Your task to perform on an android device: View the shopping cart on bestbuy.com. Add logitech g903 to the cart on bestbuy.com, then select checkout. Image 0: 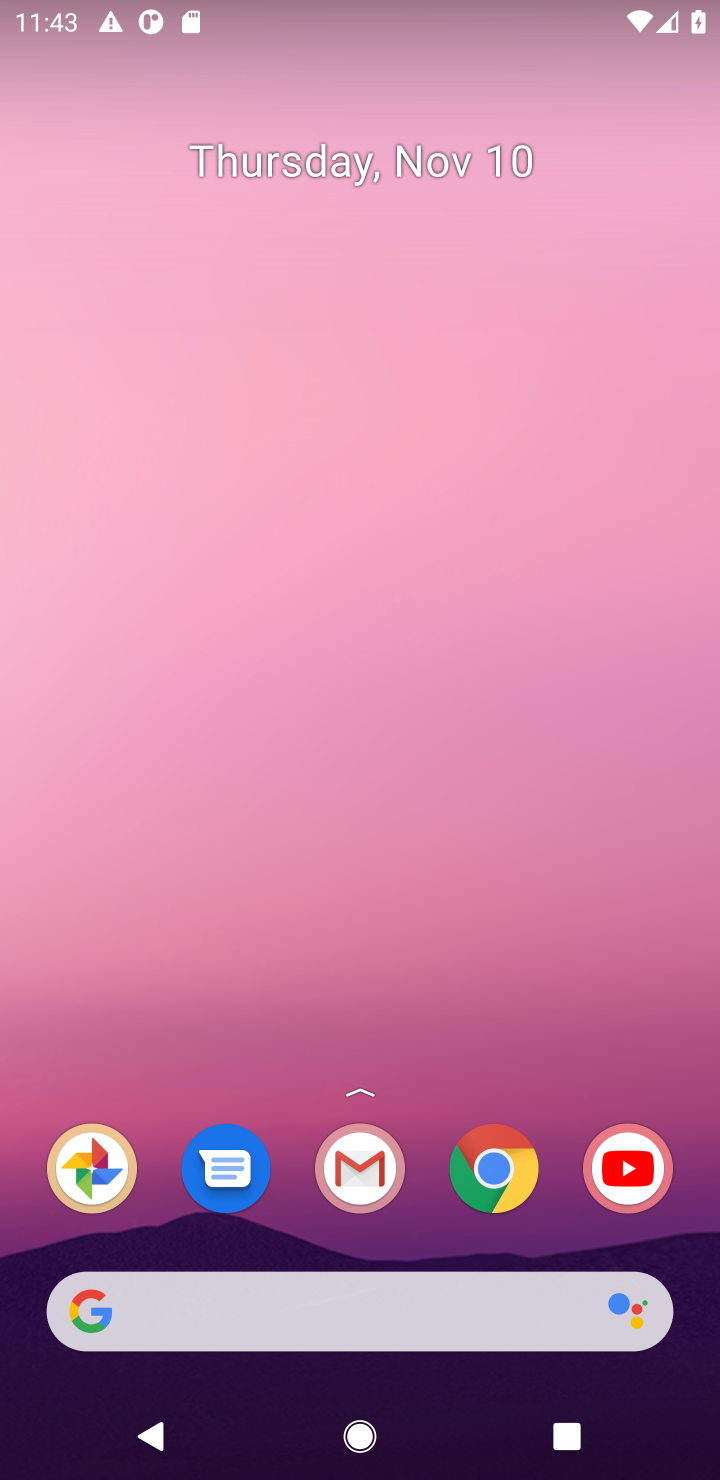
Step 0: click (494, 1179)
Your task to perform on an android device: View the shopping cart on bestbuy.com. Add logitech g903 to the cart on bestbuy.com, then select checkout. Image 1: 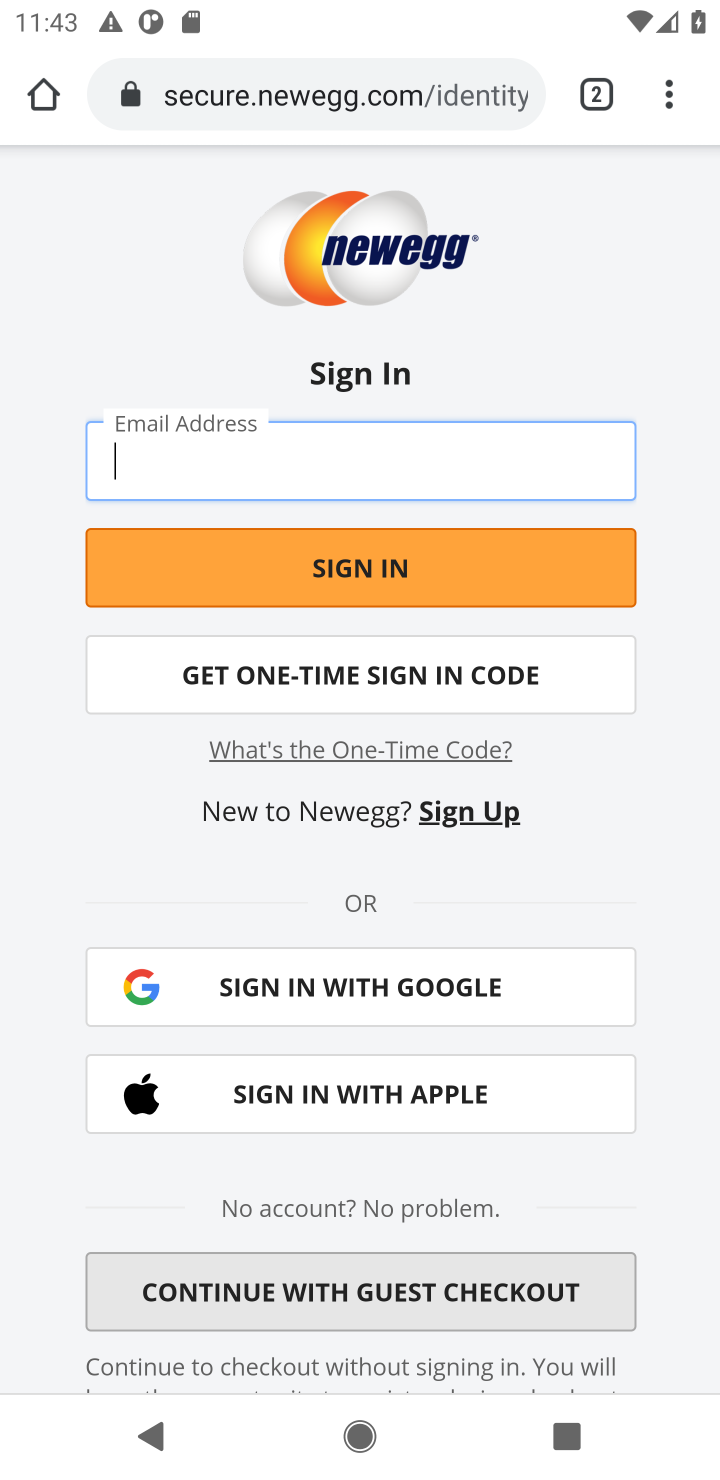
Step 1: click (338, 111)
Your task to perform on an android device: View the shopping cart on bestbuy.com. Add logitech g903 to the cart on bestbuy.com, then select checkout. Image 2: 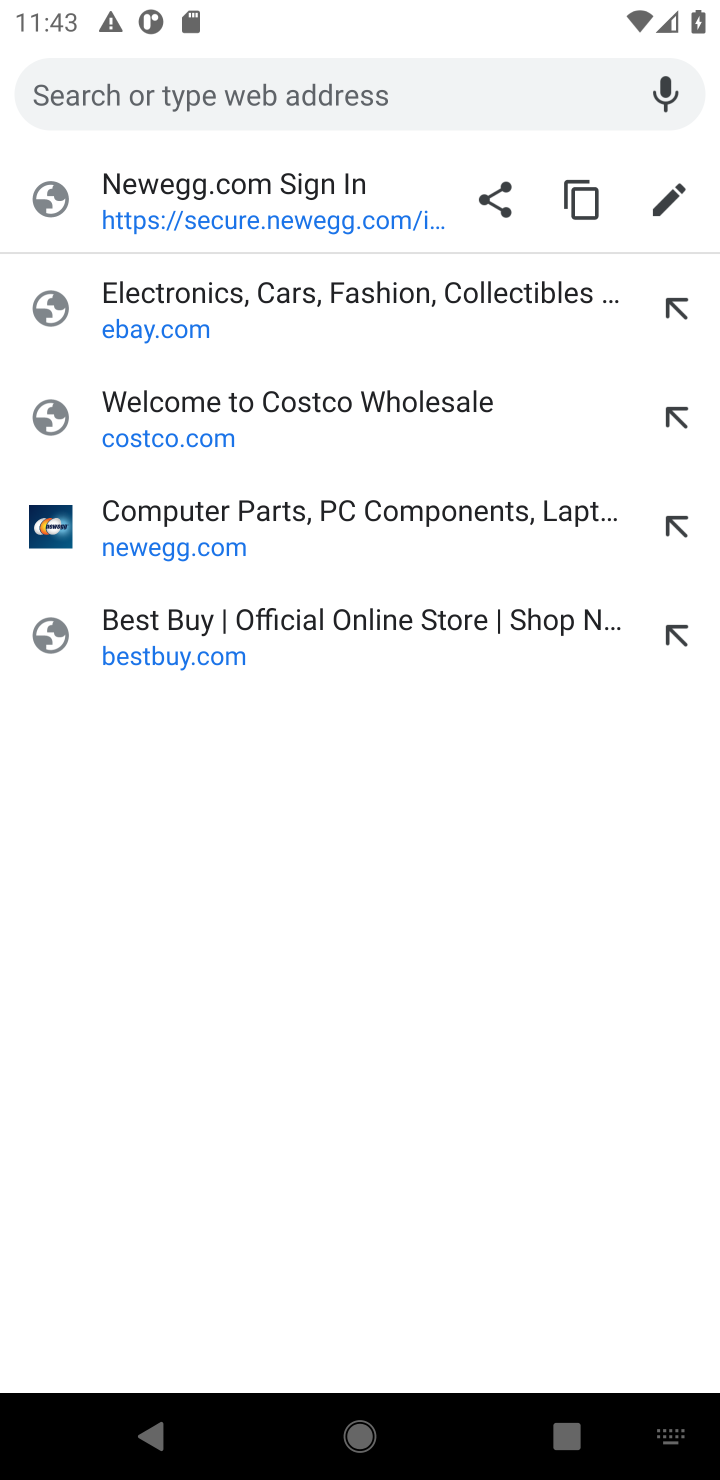
Step 2: click (176, 628)
Your task to perform on an android device: View the shopping cart on bestbuy.com. Add logitech g903 to the cart on bestbuy.com, then select checkout. Image 3: 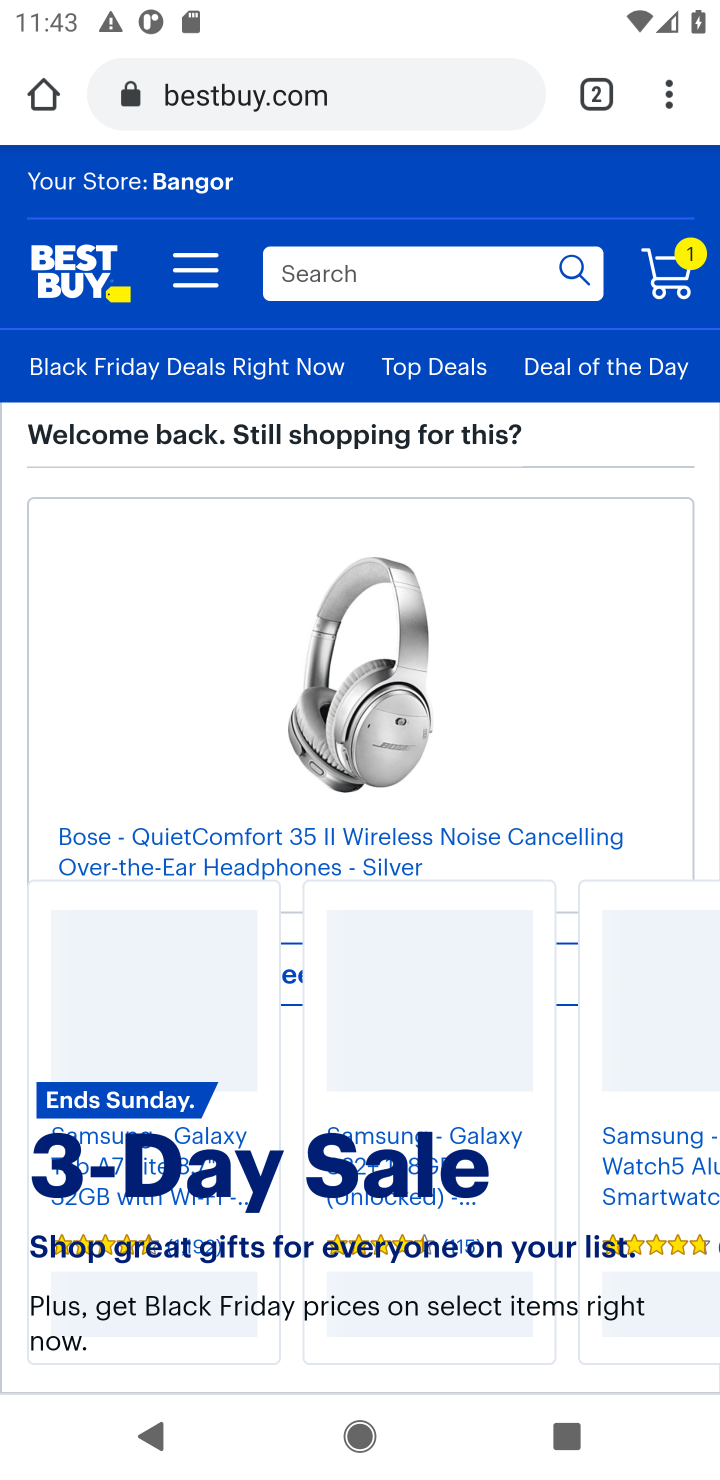
Step 3: click (683, 277)
Your task to perform on an android device: View the shopping cart on bestbuy.com. Add logitech g903 to the cart on bestbuy.com, then select checkout. Image 4: 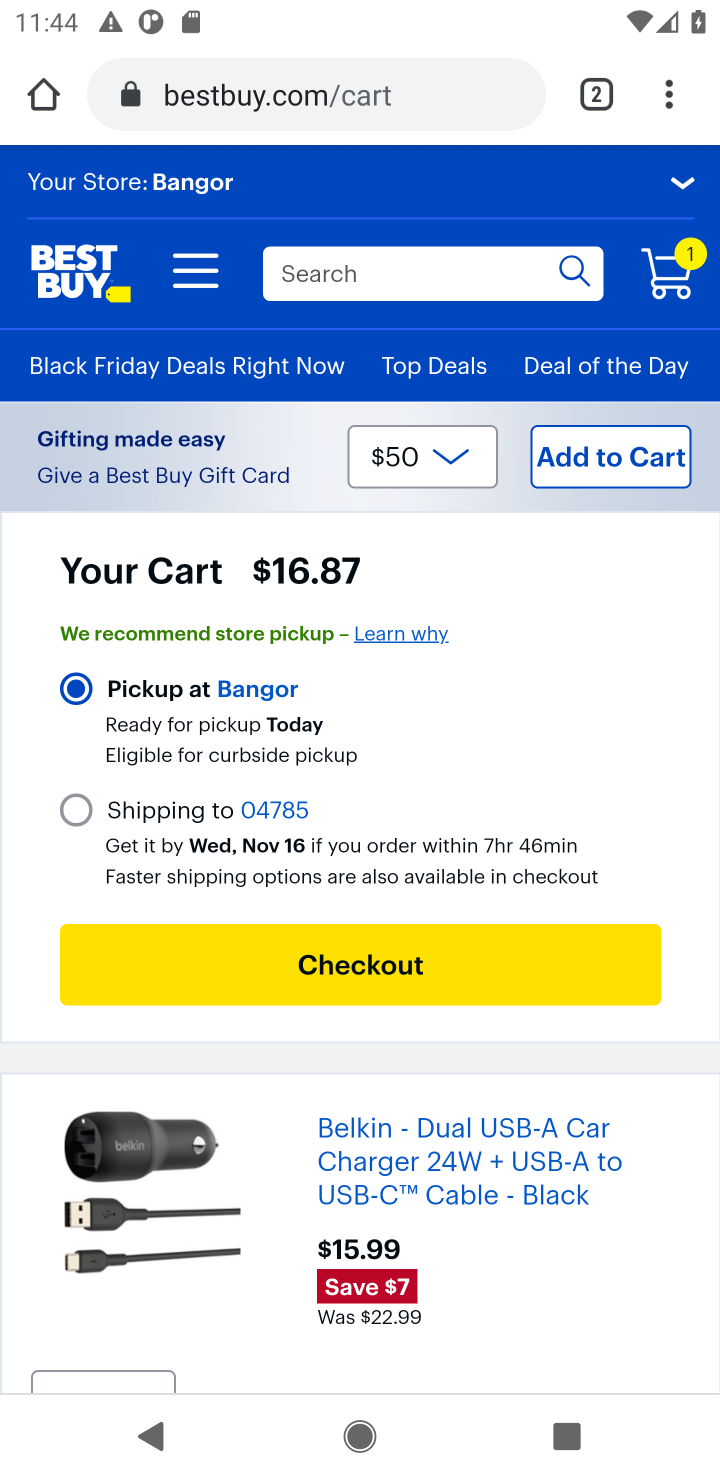
Step 4: drag from (351, 806) to (351, 511)
Your task to perform on an android device: View the shopping cart on bestbuy.com. Add logitech g903 to the cart on bestbuy.com, then select checkout. Image 5: 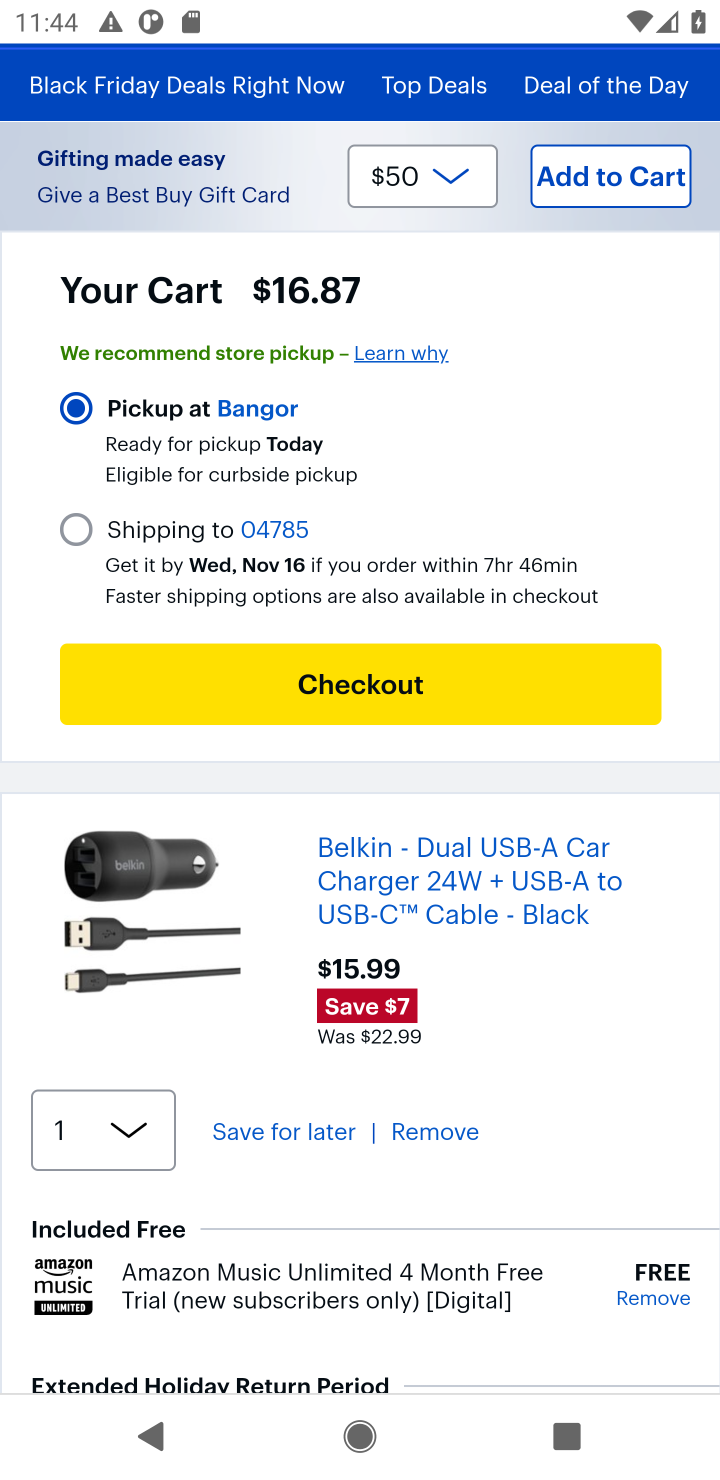
Step 5: drag from (628, 487) to (608, 943)
Your task to perform on an android device: View the shopping cart on bestbuy.com. Add logitech g903 to the cart on bestbuy.com, then select checkout. Image 6: 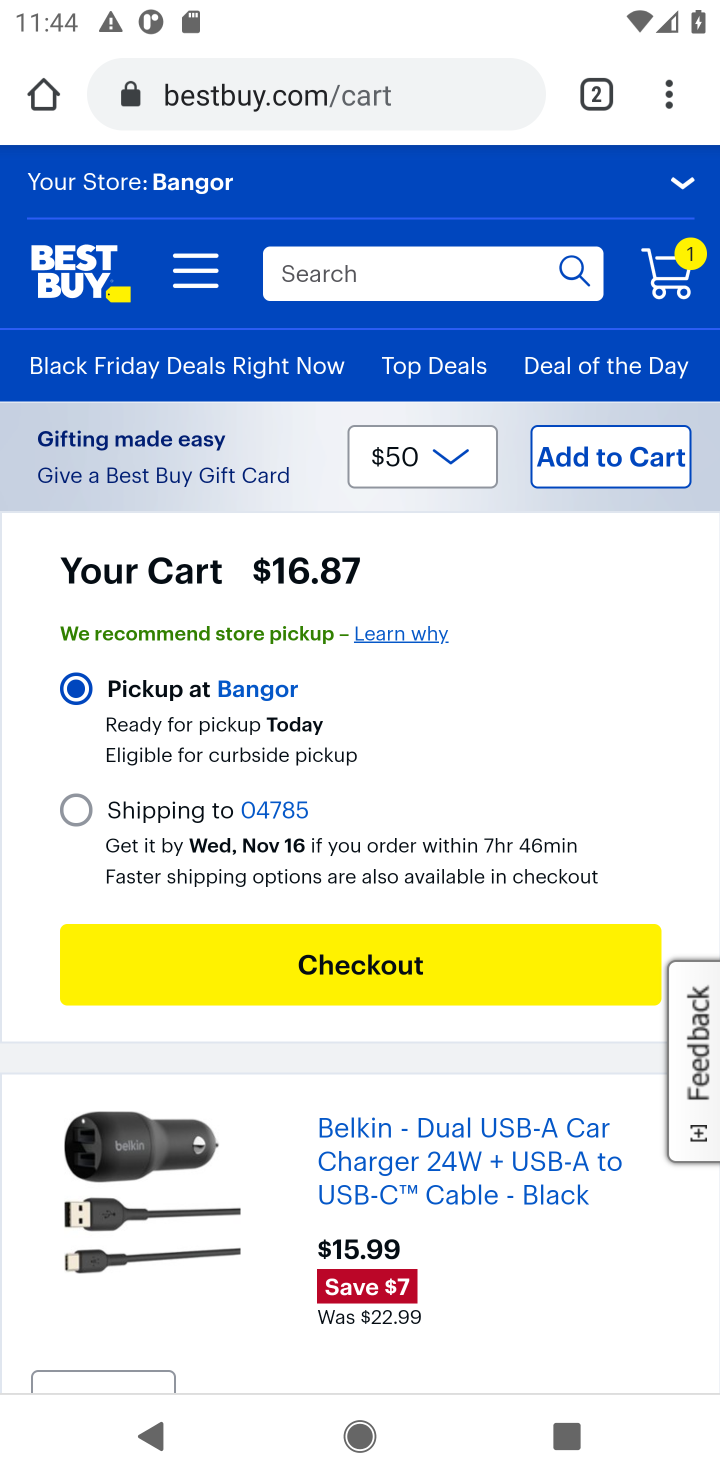
Step 6: click (339, 277)
Your task to perform on an android device: View the shopping cart on bestbuy.com. Add logitech g903 to the cart on bestbuy.com, then select checkout. Image 7: 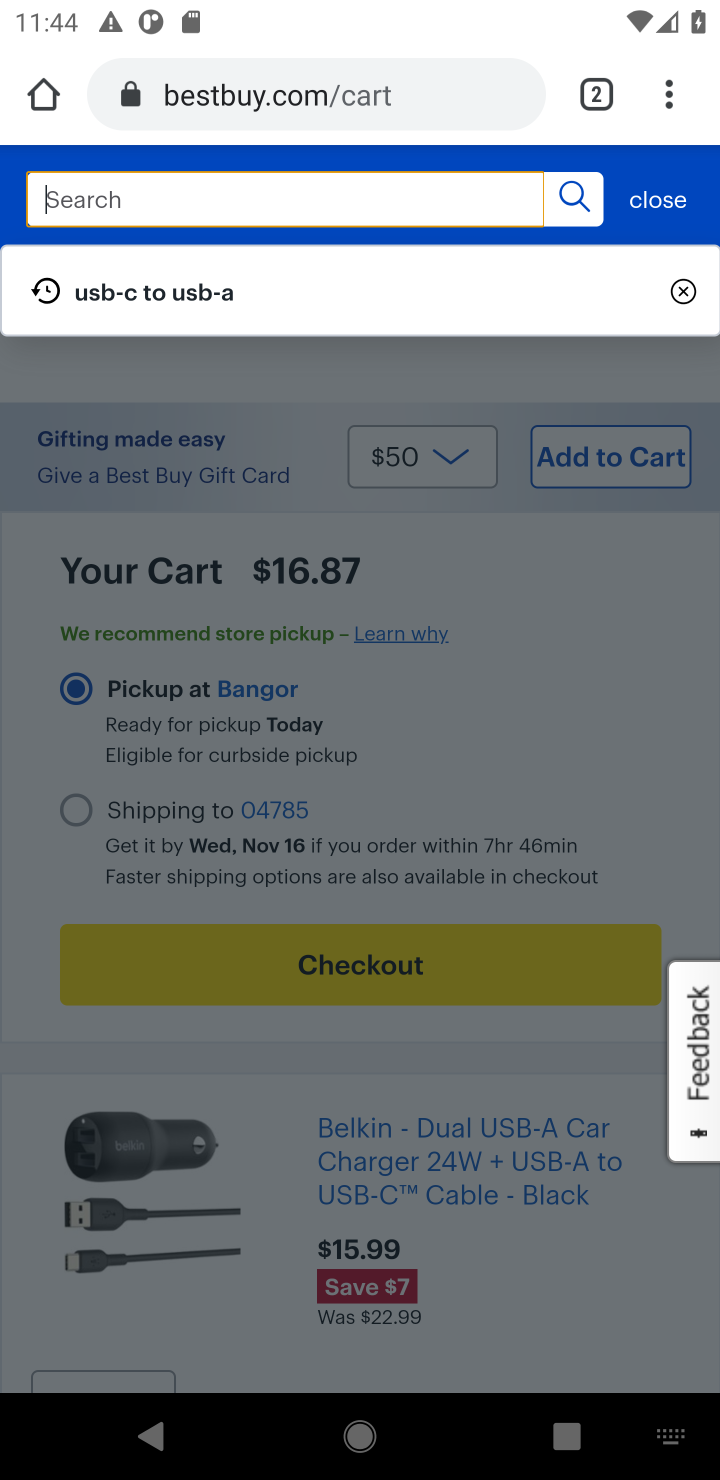
Step 7: type "logitech g903"
Your task to perform on an android device: View the shopping cart on bestbuy.com. Add logitech g903 to the cart on bestbuy.com, then select checkout. Image 8: 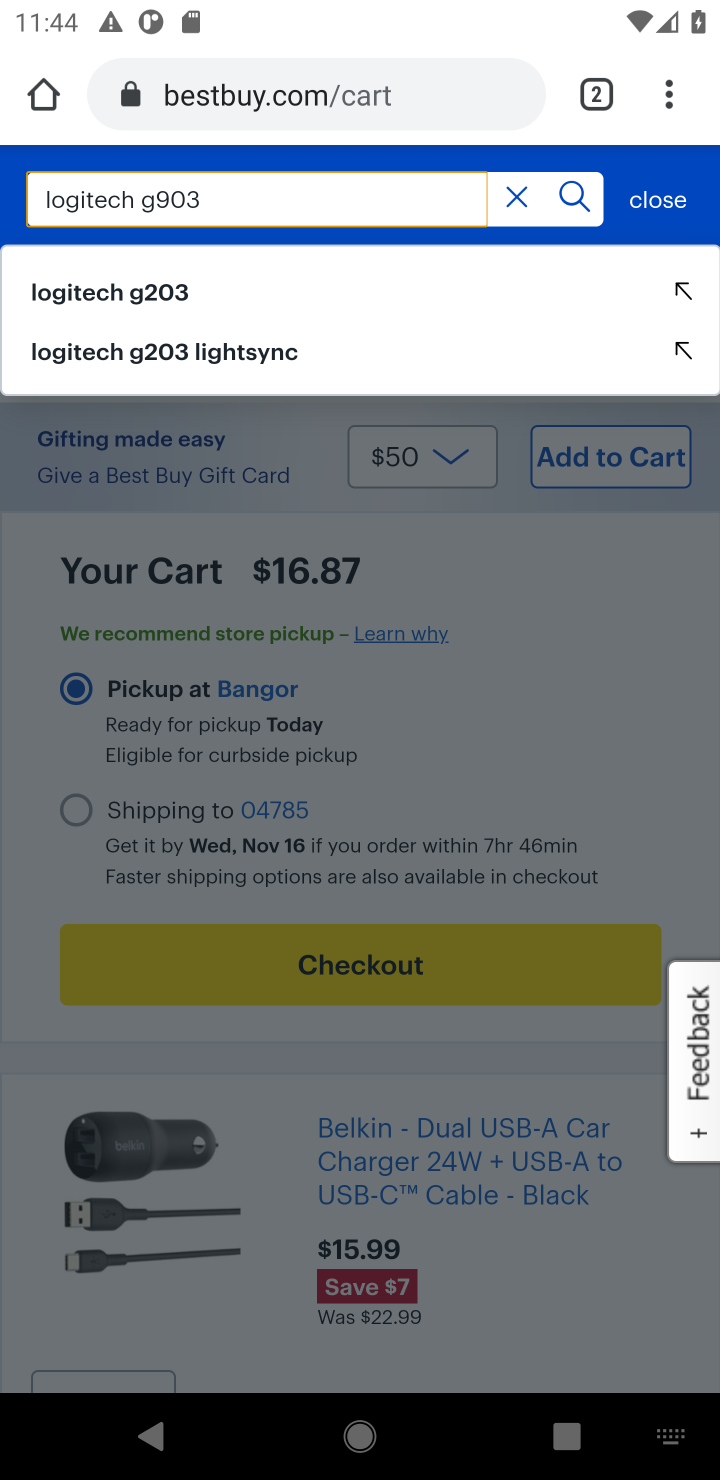
Step 8: click (577, 193)
Your task to perform on an android device: View the shopping cart on bestbuy.com. Add logitech g903 to the cart on bestbuy.com, then select checkout. Image 9: 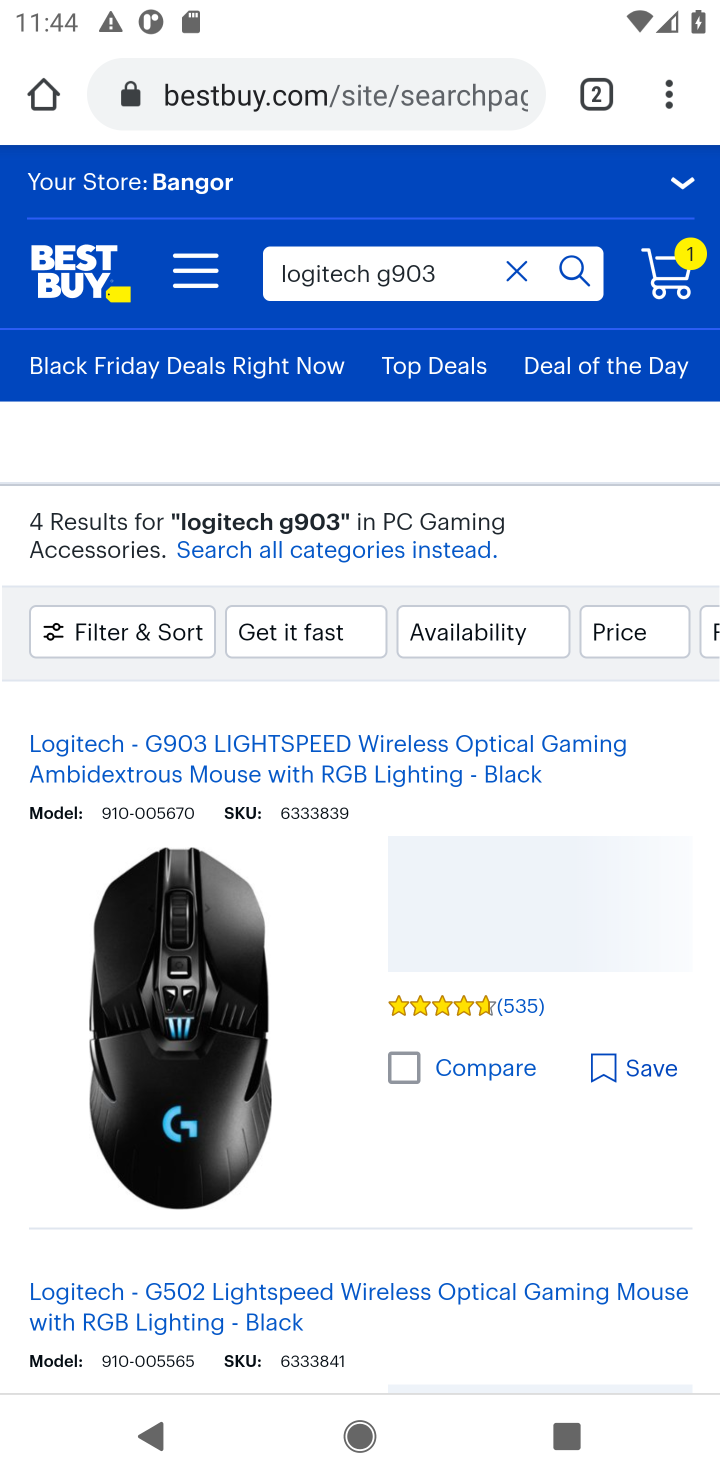
Step 9: click (212, 1050)
Your task to perform on an android device: View the shopping cart on bestbuy.com. Add logitech g903 to the cart on bestbuy.com, then select checkout. Image 10: 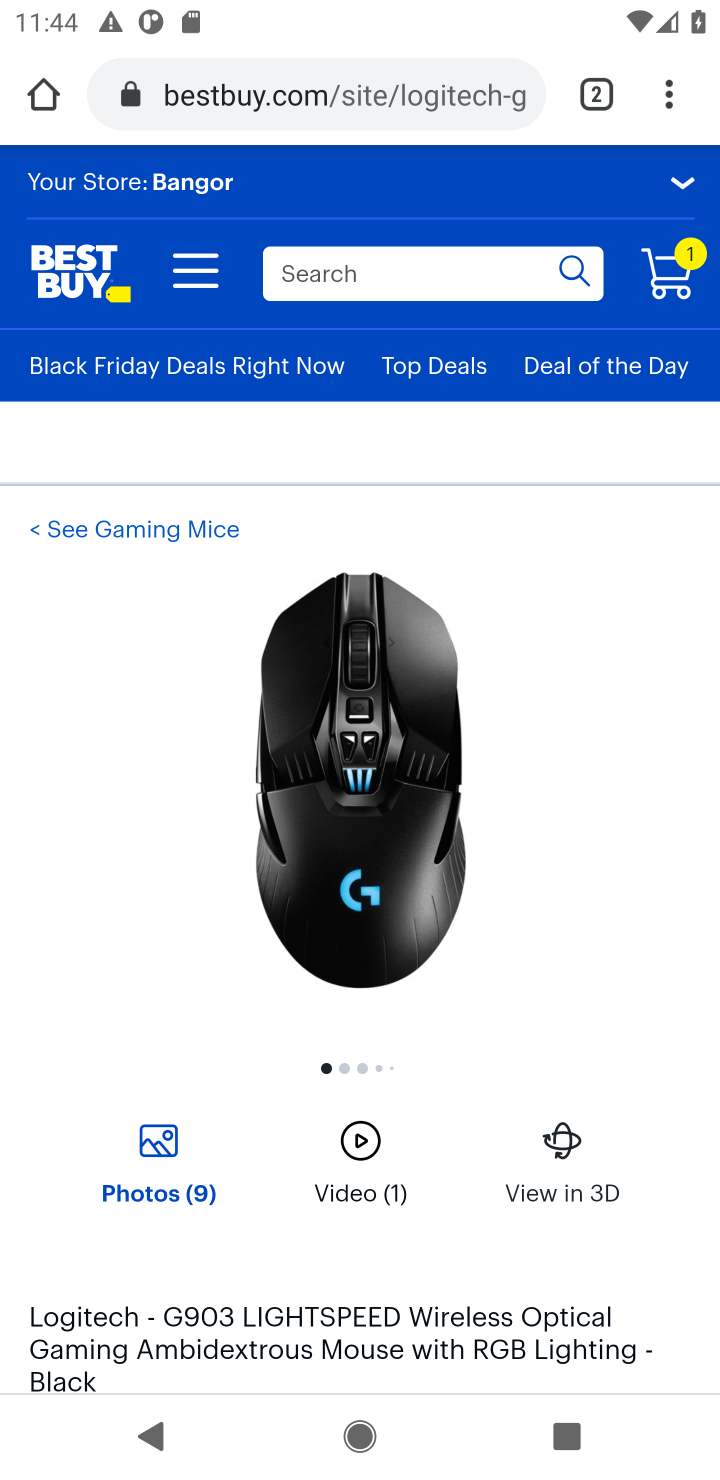
Step 10: drag from (210, 1039) to (178, 363)
Your task to perform on an android device: View the shopping cart on bestbuy.com. Add logitech g903 to the cart on bestbuy.com, then select checkout. Image 11: 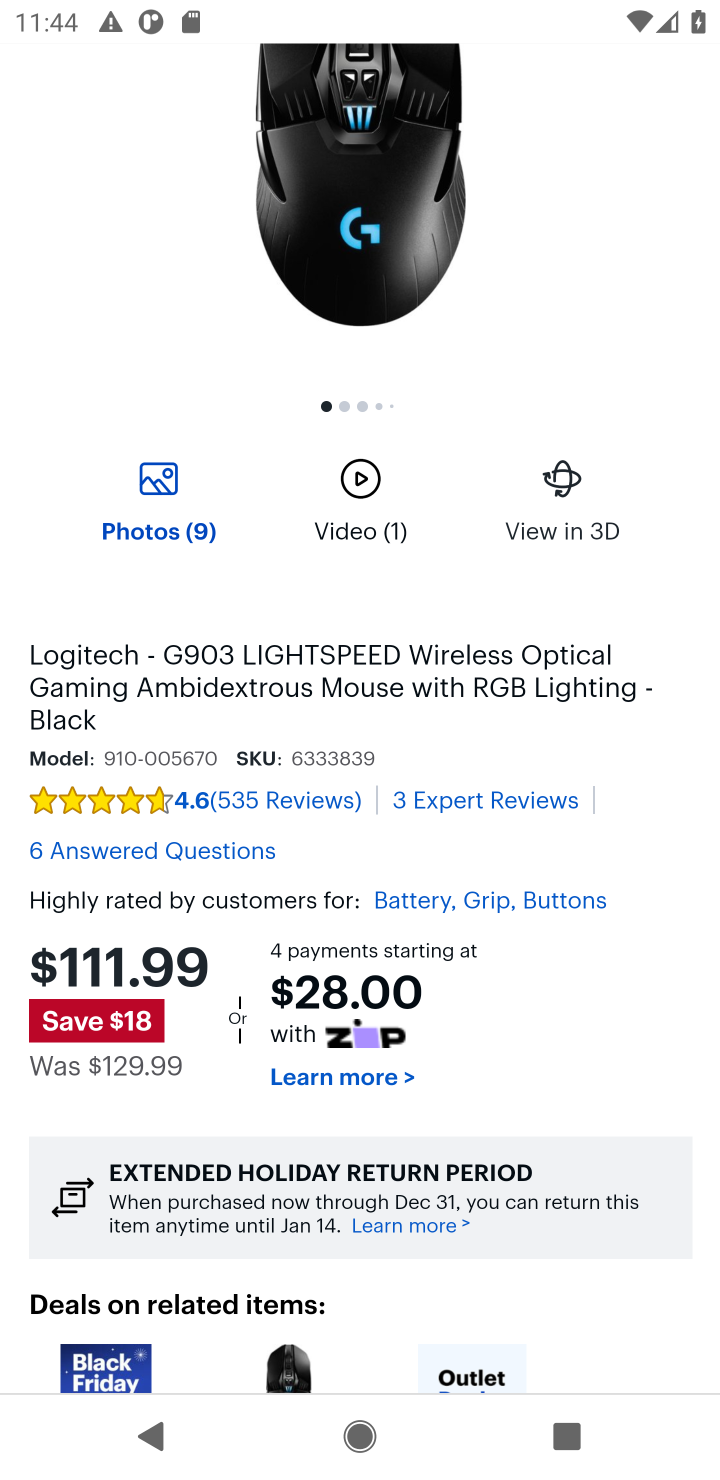
Step 11: drag from (335, 1030) to (323, 329)
Your task to perform on an android device: View the shopping cart on bestbuy.com. Add logitech g903 to the cart on bestbuy.com, then select checkout. Image 12: 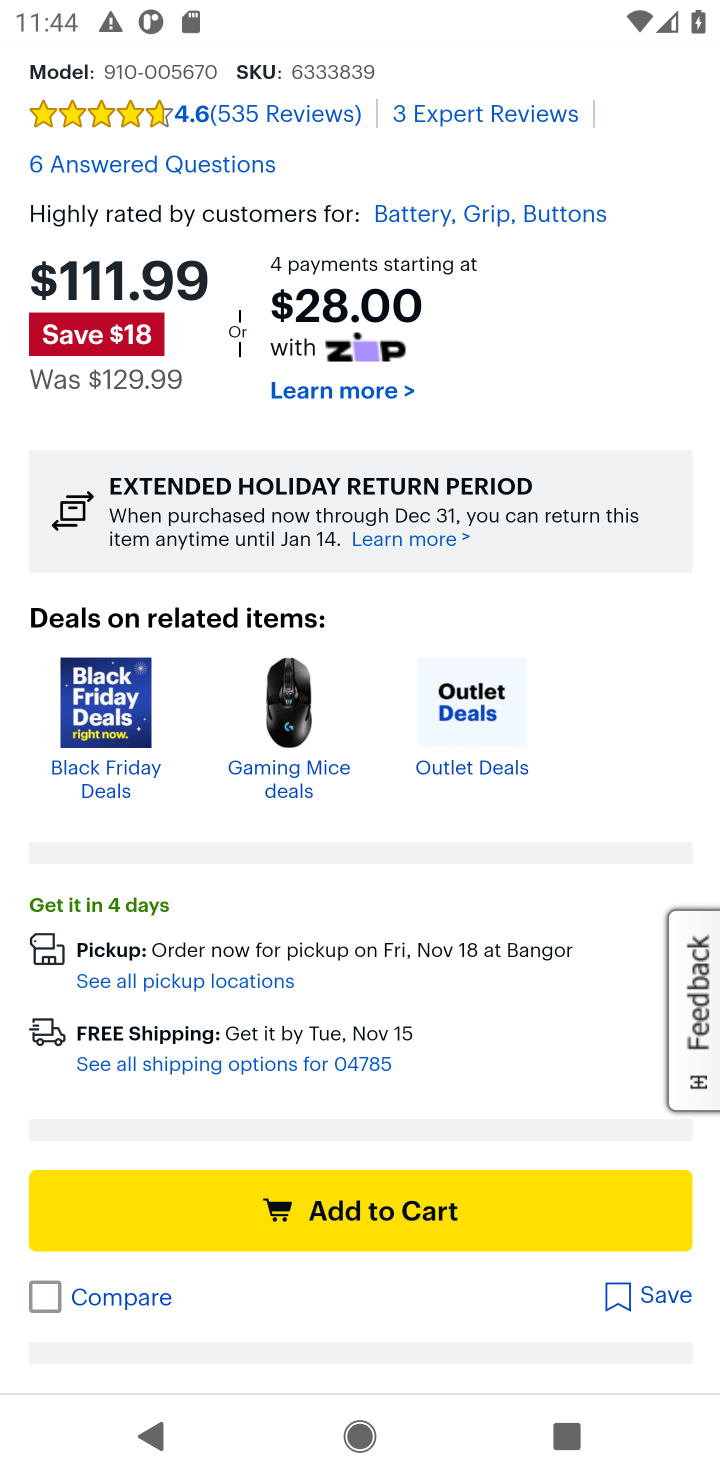
Step 12: click (370, 1211)
Your task to perform on an android device: View the shopping cart on bestbuy.com. Add logitech g903 to the cart on bestbuy.com, then select checkout. Image 13: 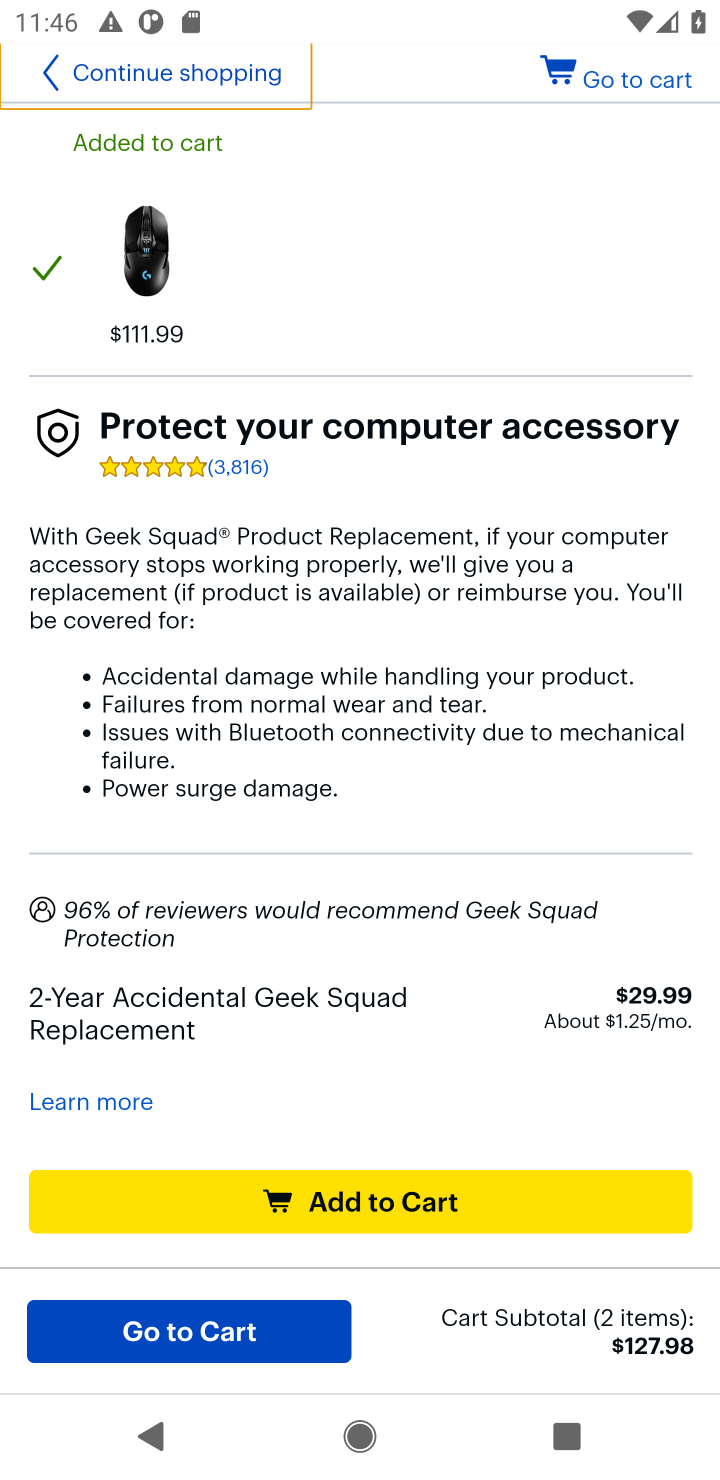
Step 13: click (615, 85)
Your task to perform on an android device: View the shopping cart on bestbuy.com. Add logitech g903 to the cart on bestbuy.com, then select checkout. Image 14: 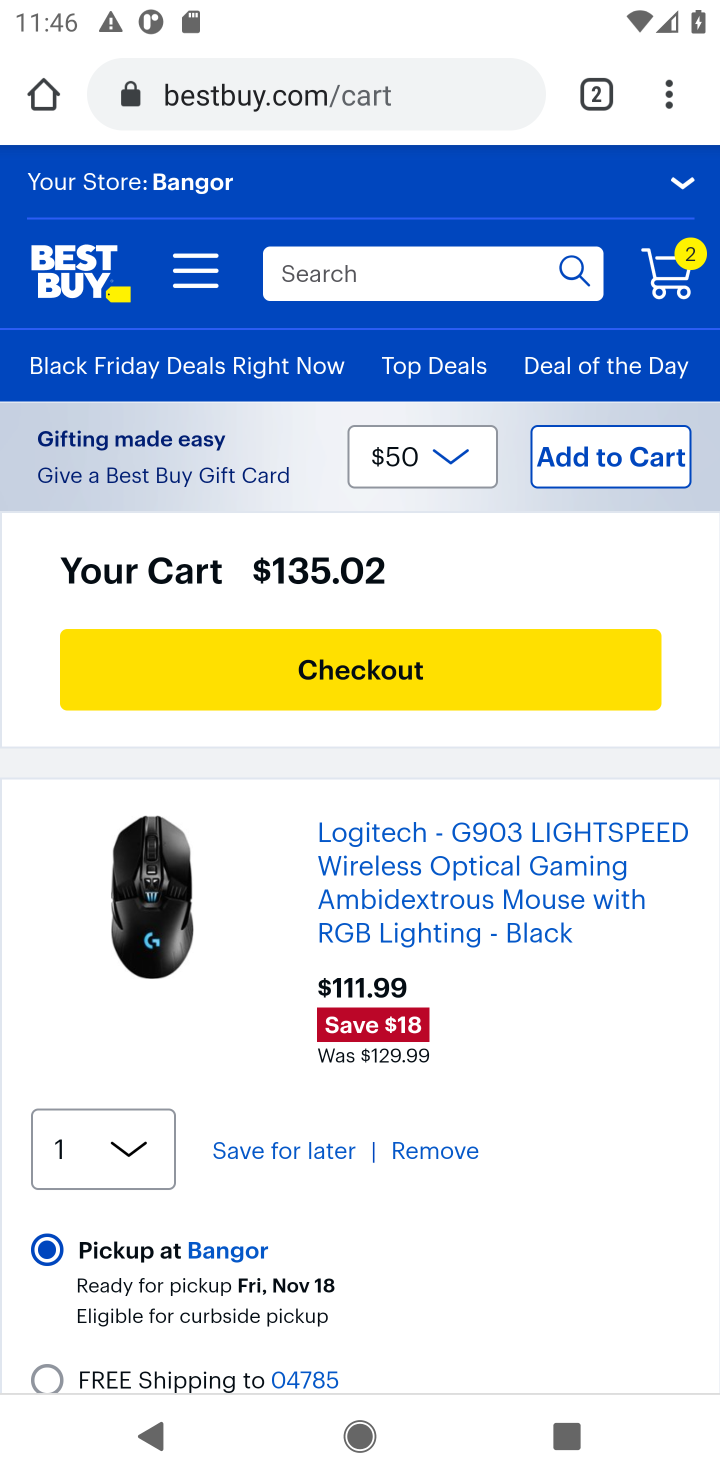
Step 14: click (309, 671)
Your task to perform on an android device: View the shopping cart on bestbuy.com. Add logitech g903 to the cart on bestbuy.com, then select checkout. Image 15: 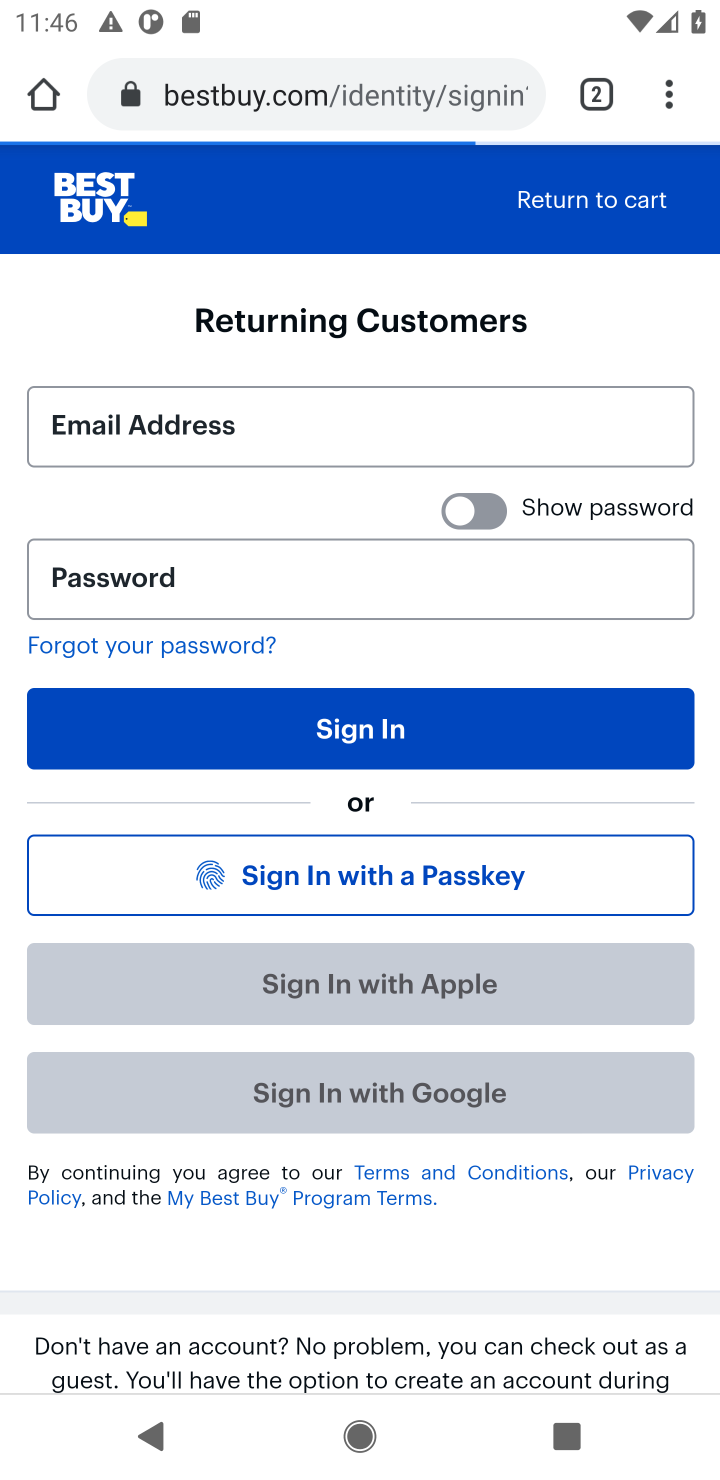
Step 15: task complete